Your task to perform on an android device: toggle show notifications on the lock screen Image 0: 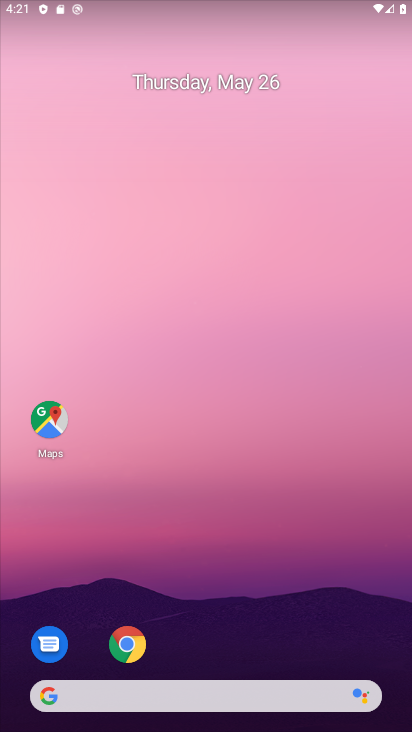
Step 0: drag from (186, 562) to (171, 69)
Your task to perform on an android device: toggle show notifications on the lock screen Image 1: 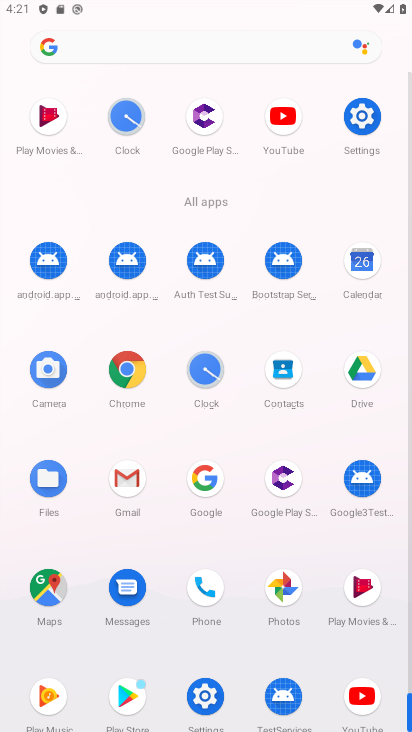
Step 1: drag from (14, 538) to (14, 216)
Your task to perform on an android device: toggle show notifications on the lock screen Image 2: 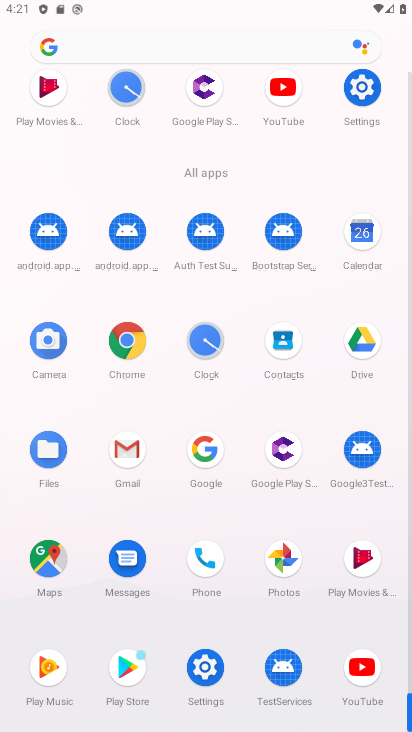
Step 2: click (202, 663)
Your task to perform on an android device: toggle show notifications on the lock screen Image 3: 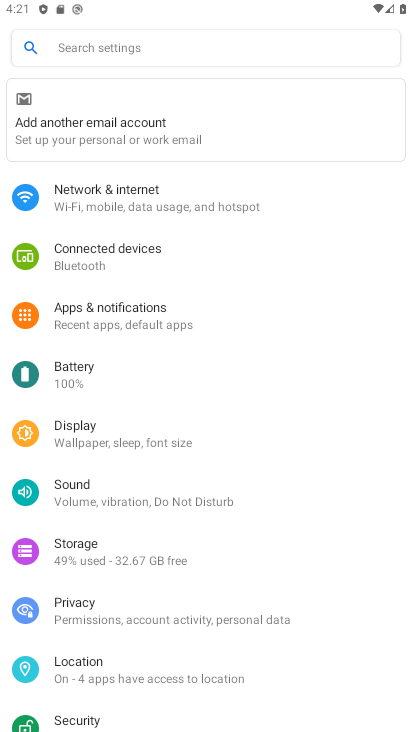
Step 3: click (124, 319)
Your task to perform on an android device: toggle show notifications on the lock screen Image 4: 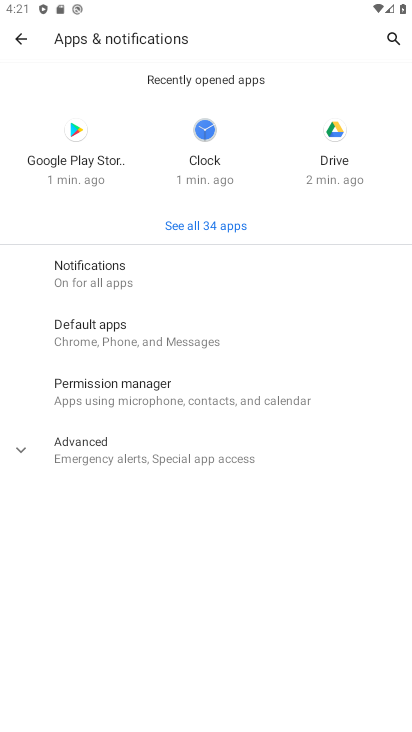
Step 4: click (77, 429)
Your task to perform on an android device: toggle show notifications on the lock screen Image 5: 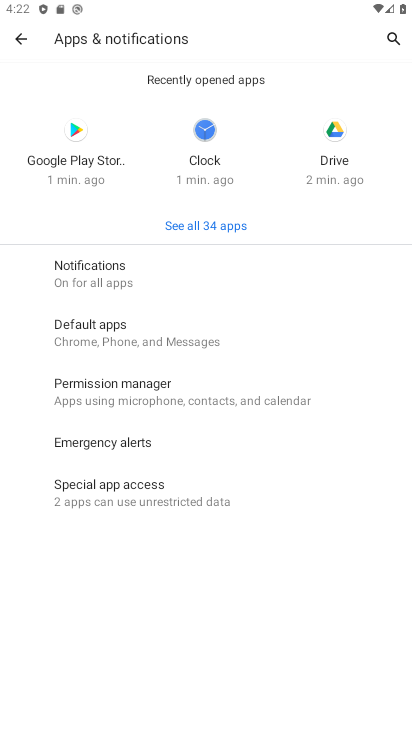
Step 5: click (128, 279)
Your task to perform on an android device: toggle show notifications on the lock screen Image 6: 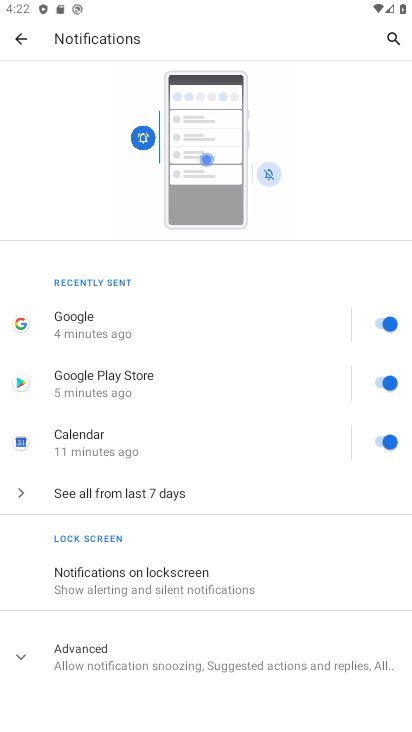
Step 6: drag from (228, 572) to (283, 146)
Your task to perform on an android device: toggle show notifications on the lock screen Image 7: 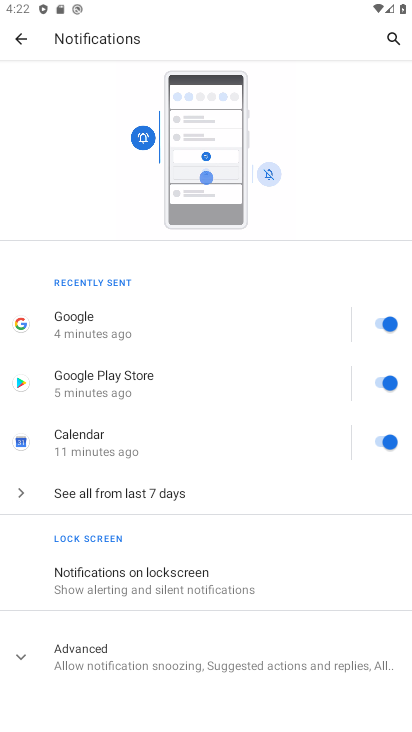
Step 7: click (20, 660)
Your task to perform on an android device: toggle show notifications on the lock screen Image 8: 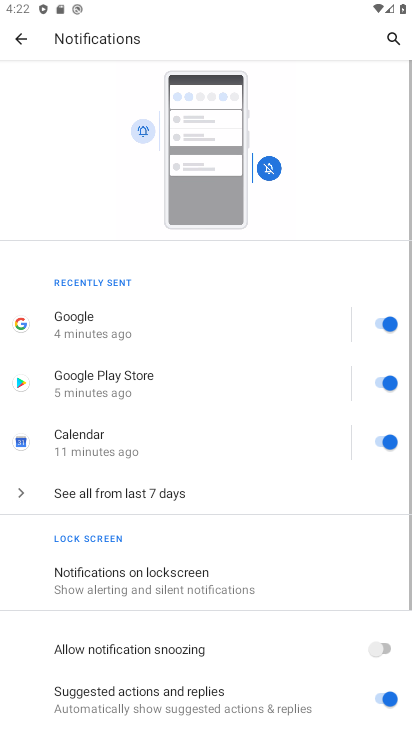
Step 8: drag from (258, 657) to (236, 233)
Your task to perform on an android device: toggle show notifications on the lock screen Image 9: 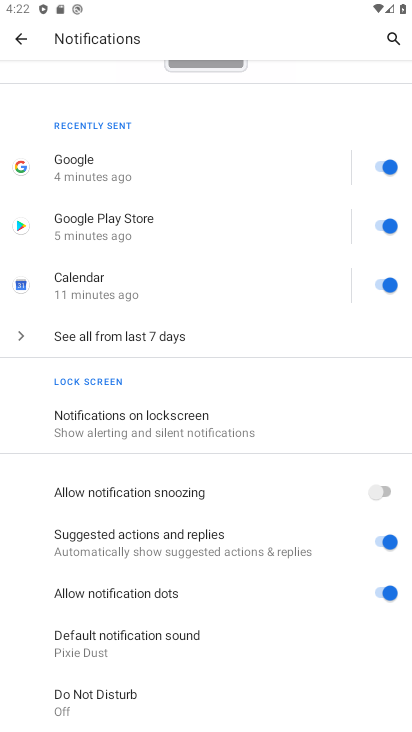
Step 9: click (184, 412)
Your task to perform on an android device: toggle show notifications on the lock screen Image 10: 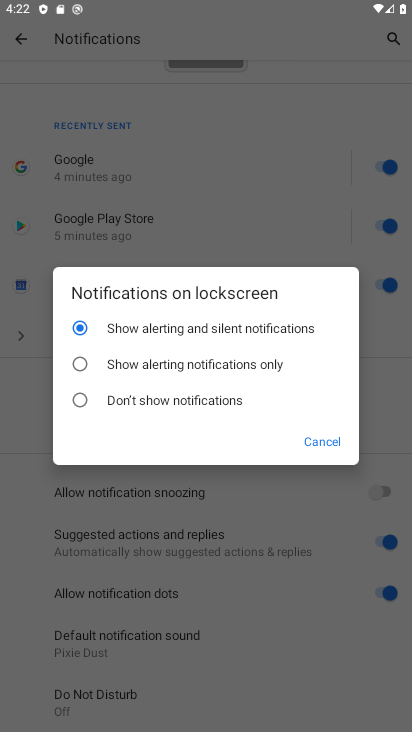
Step 10: click (169, 327)
Your task to perform on an android device: toggle show notifications on the lock screen Image 11: 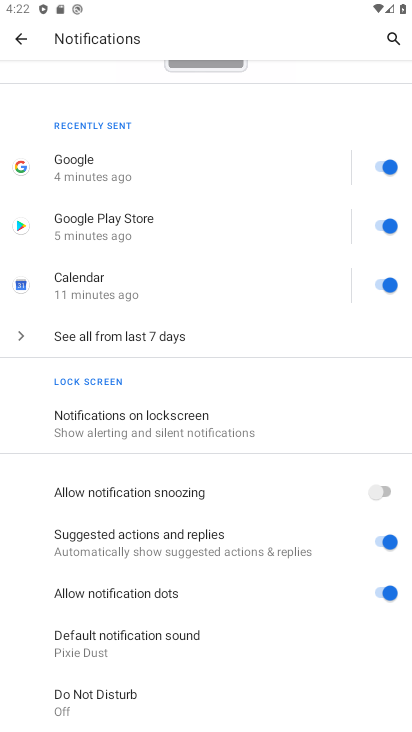
Step 11: task complete